Your task to perform on an android device: Go to settings Image 0: 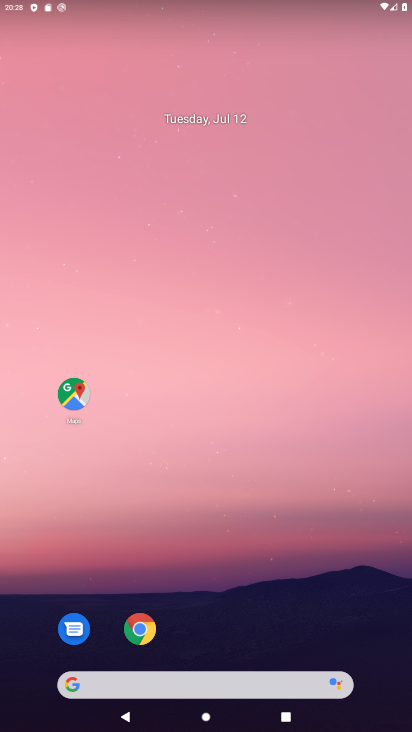
Step 0: drag from (212, 627) to (203, 31)
Your task to perform on an android device: Go to settings Image 1: 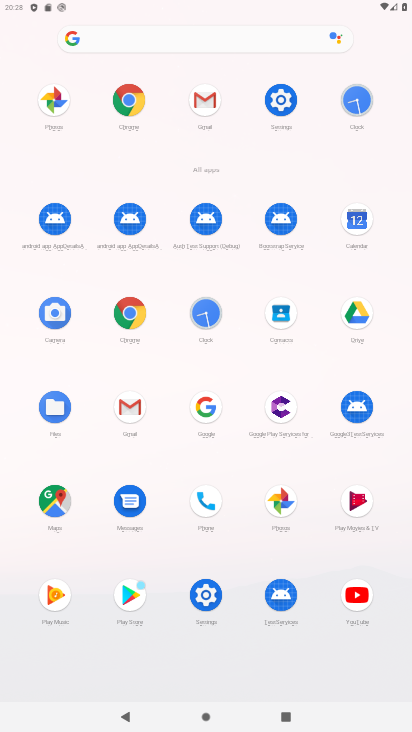
Step 1: click (283, 103)
Your task to perform on an android device: Go to settings Image 2: 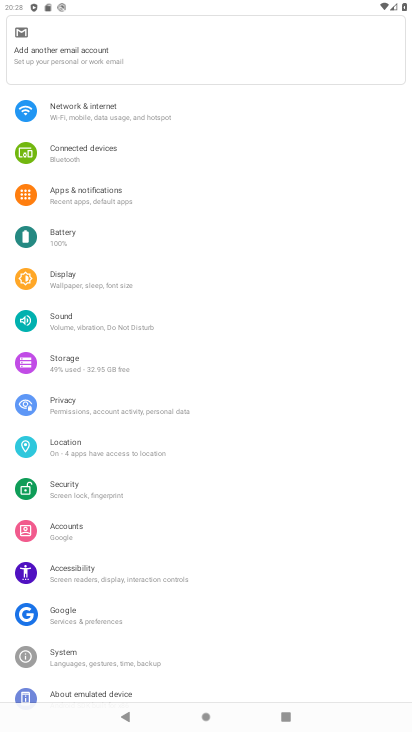
Step 2: task complete